Your task to perform on an android device: Open Chrome and go to settings Image 0: 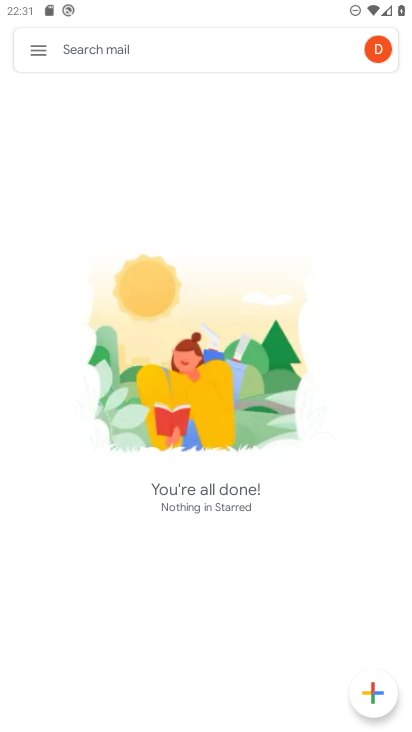
Step 0: press home button
Your task to perform on an android device: Open Chrome and go to settings Image 1: 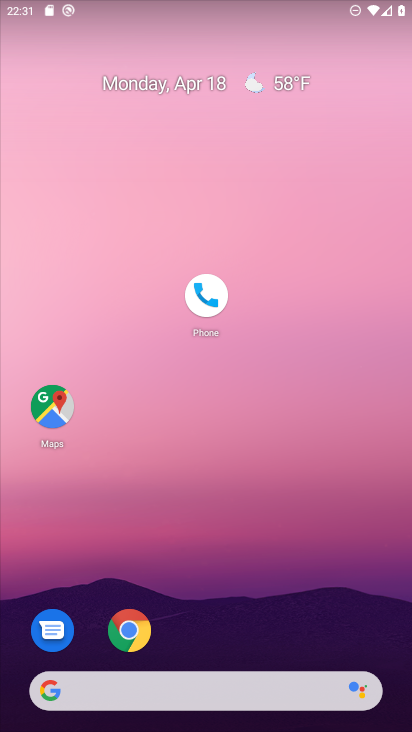
Step 1: click (124, 631)
Your task to perform on an android device: Open Chrome and go to settings Image 2: 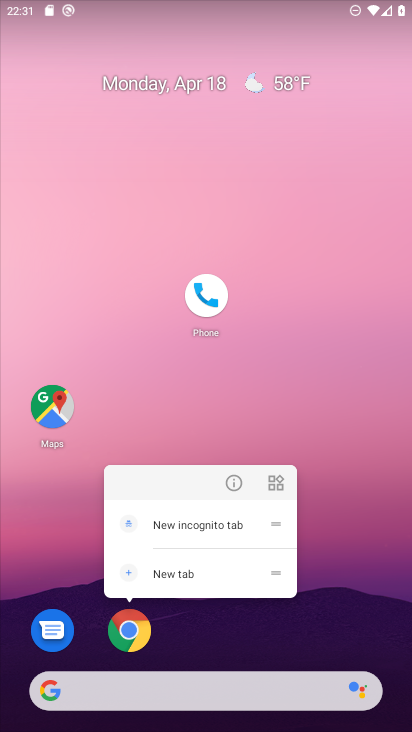
Step 2: click (133, 627)
Your task to perform on an android device: Open Chrome and go to settings Image 3: 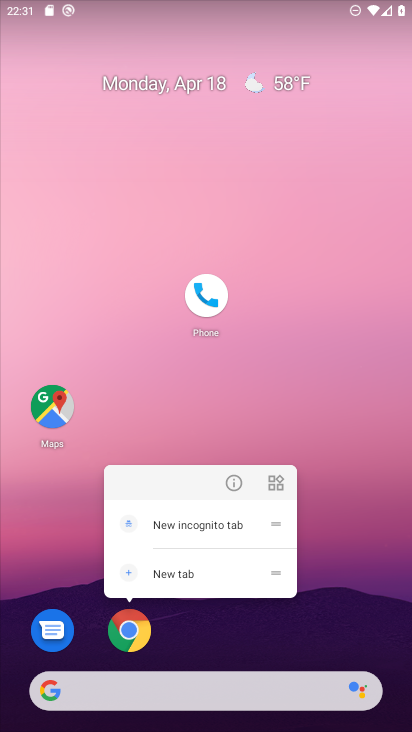
Step 3: drag from (375, 611) to (360, 167)
Your task to perform on an android device: Open Chrome and go to settings Image 4: 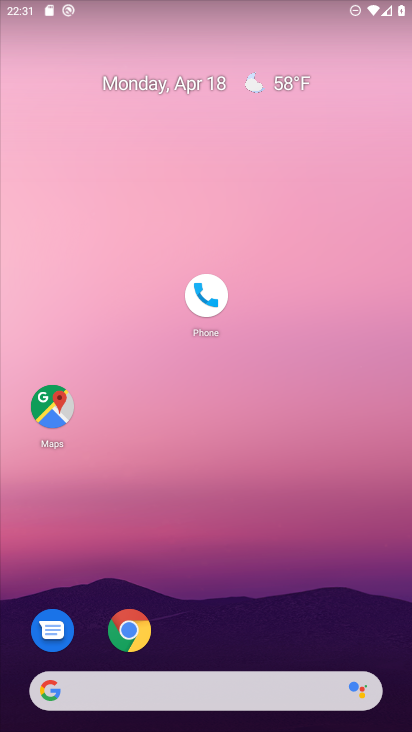
Step 4: drag from (265, 517) to (281, 125)
Your task to perform on an android device: Open Chrome and go to settings Image 5: 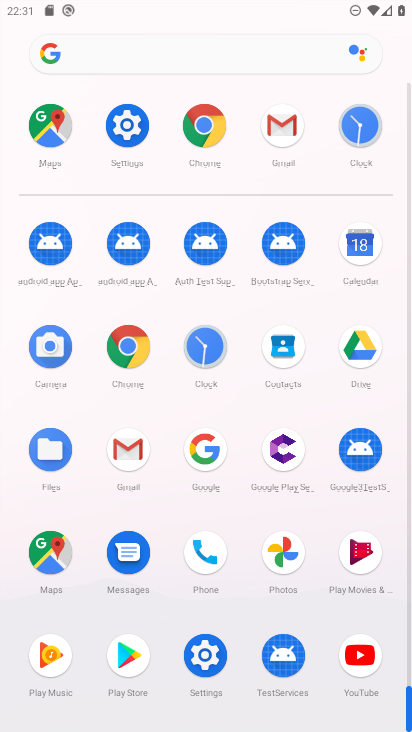
Step 5: click (142, 356)
Your task to perform on an android device: Open Chrome and go to settings Image 6: 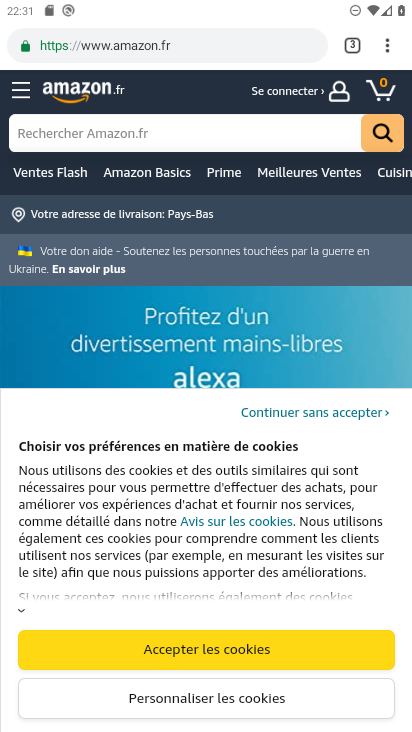
Step 6: task complete